Your task to perform on an android device: Go to Android settings Image 0: 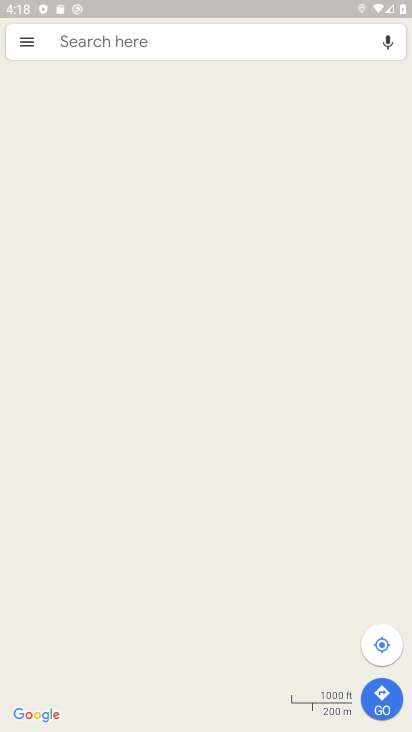
Step 0: press home button
Your task to perform on an android device: Go to Android settings Image 1: 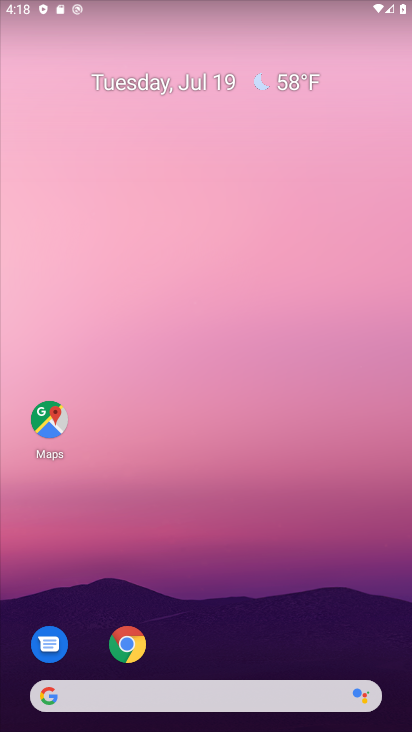
Step 1: drag from (191, 652) to (253, 242)
Your task to perform on an android device: Go to Android settings Image 2: 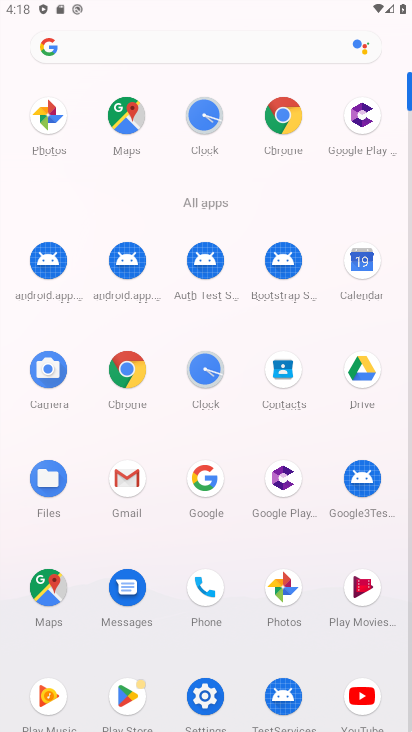
Step 2: click (198, 684)
Your task to perform on an android device: Go to Android settings Image 3: 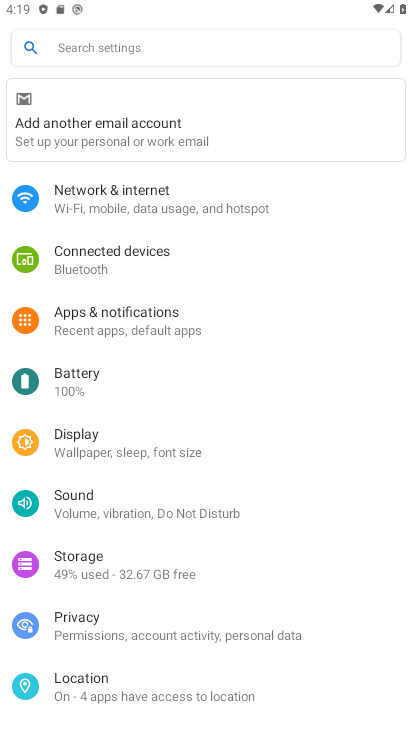
Step 3: task complete